Your task to perform on an android device: turn off notifications in google photos Image 0: 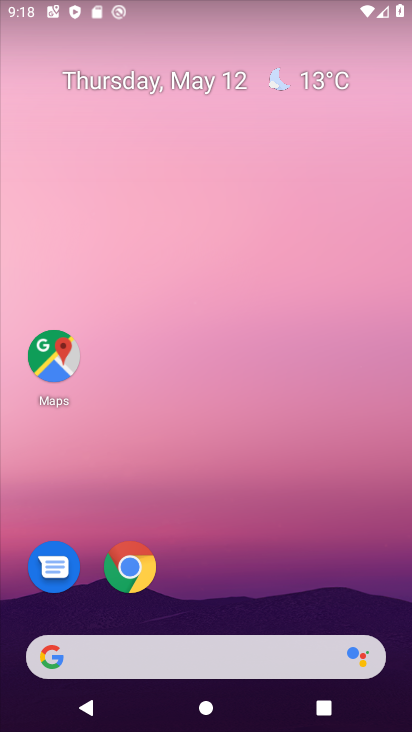
Step 0: drag from (212, 603) to (263, 39)
Your task to perform on an android device: turn off notifications in google photos Image 1: 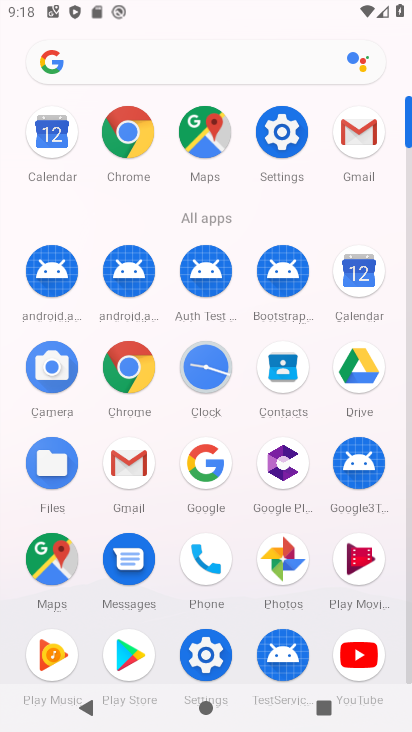
Step 1: click (282, 555)
Your task to perform on an android device: turn off notifications in google photos Image 2: 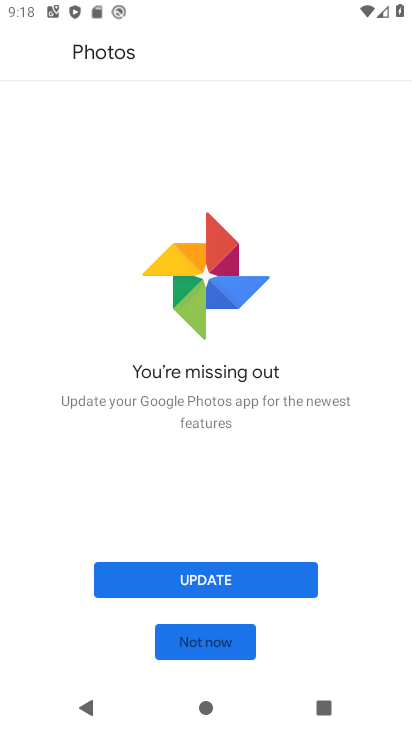
Step 2: click (211, 573)
Your task to perform on an android device: turn off notifications in google photos Image 3: 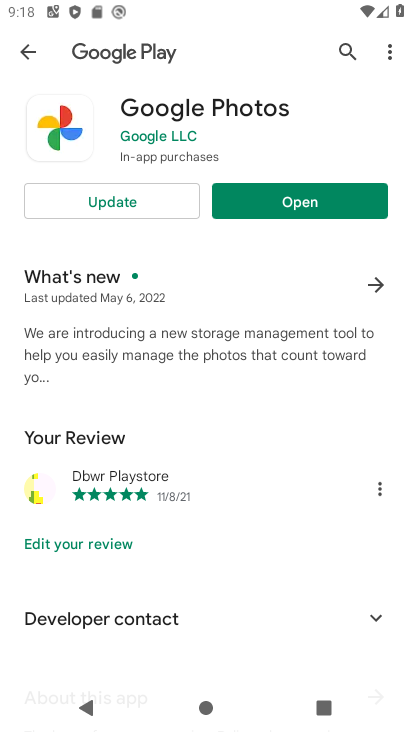
Step 3: click (123, 196)
Your task to perform on an android device: turn off notifications in google photos Image 4: 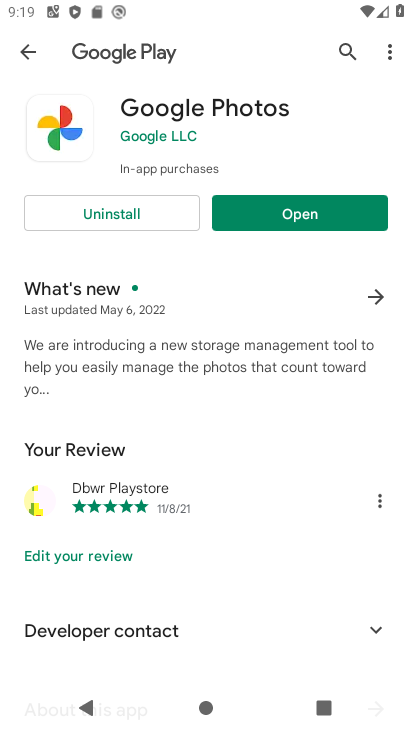
Step 4: click (305, 215)
Your task to perform on an android device: turn off notifications in google photos Image 5: 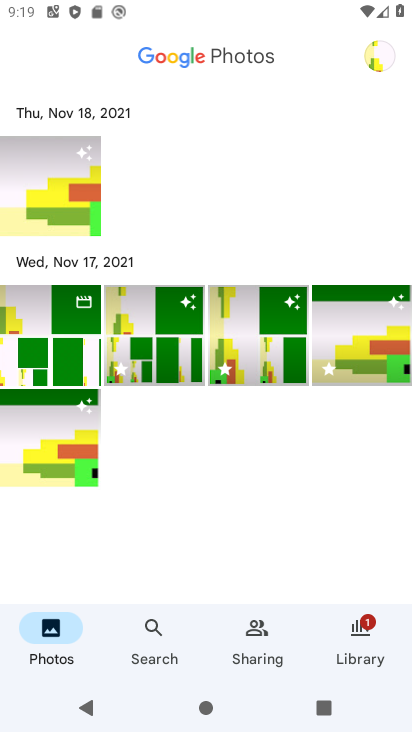
Step 5: click (378, 49)
Your task to perform on an android device: turn off notifications in google photos Image 6: 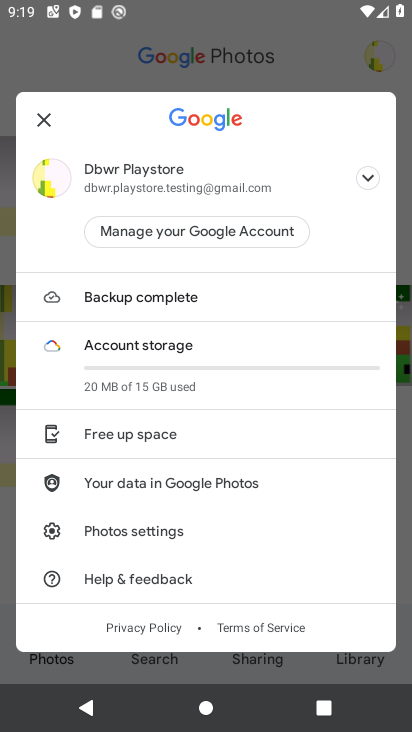
Step 6: click (133, 532)
Your task to perform on an android device: turn off notifications in google photos Image 7: 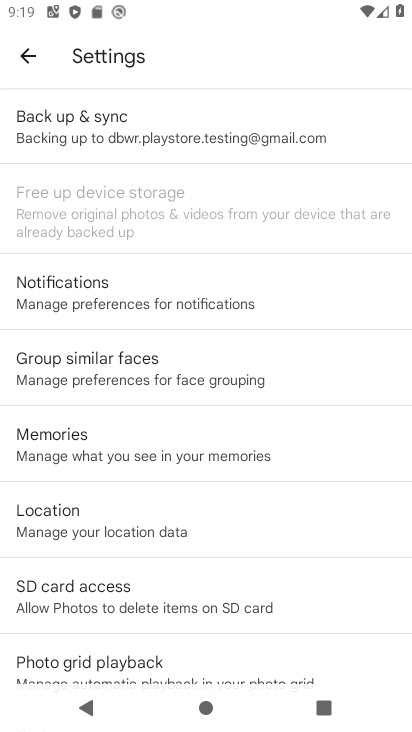
Step 7: click (86, 282)
Your task to perform on an android device: turn off notifications in google photos Image 8: 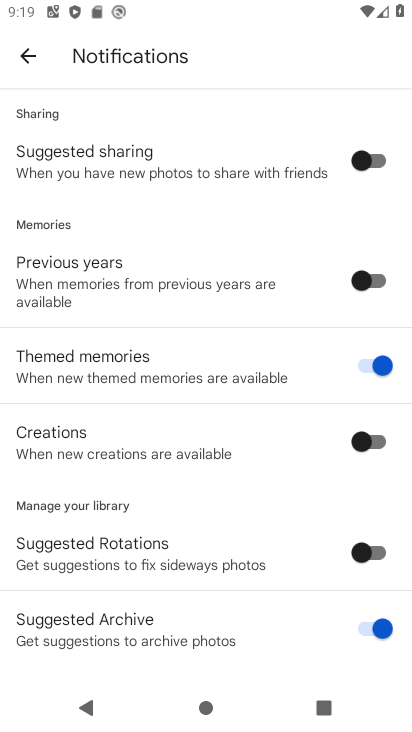
Step 8: drag from (123, 574) to (147, 91)
Your task to perform on an android device: turn off notifications in google photos Image 9: 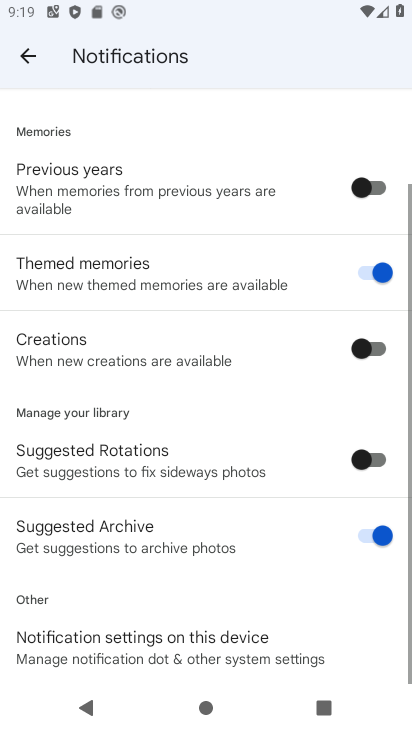
Step 9: click (199, 656)
Your task to perform on an android device: turn off notifications in google photos Image 10: 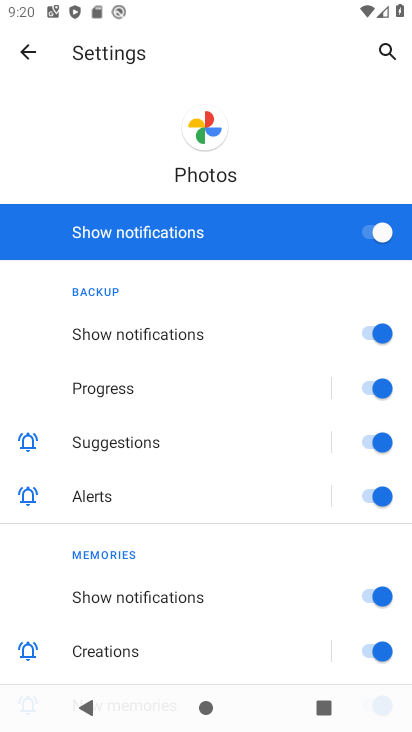
Step 10: click (365, 229)
Your task to perform on an android device: turn off notifications in google photos Image 11: 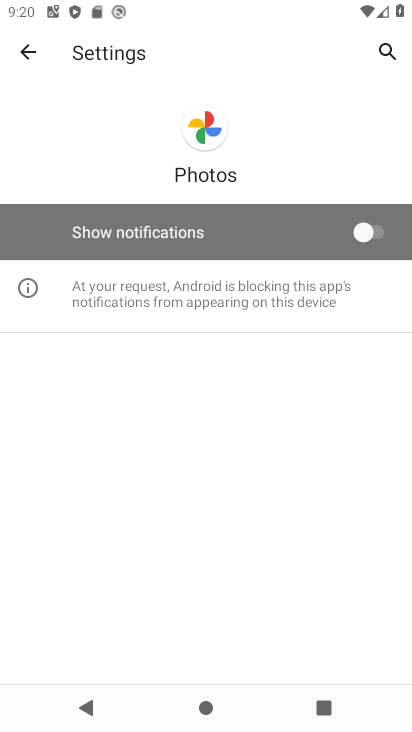
Step 11: task complete